Your task to perform on an android device: read, delete, or share a saved page in the chrome app Image 0: 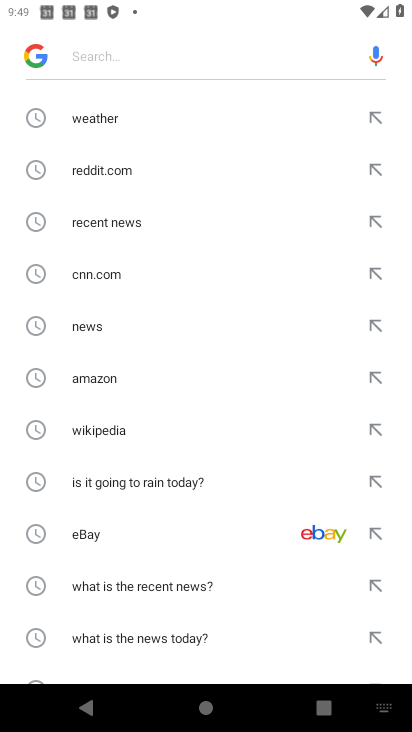
Step 0: drag from (205, 661) to (227, 250)
Your task to perform on an android device: read, delete, or share a saved page in the chrome app Image 1: 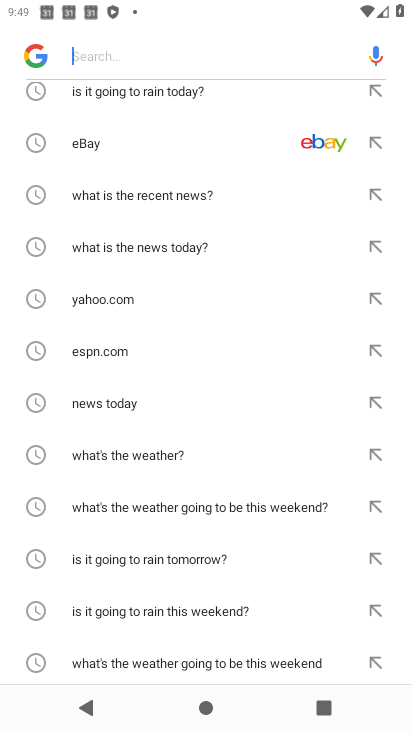
Step 1: drag from (210, 214) to (312, 701)
Your task to perform on an android device: read, delete, or share a saved page in the chrome app Image 2: 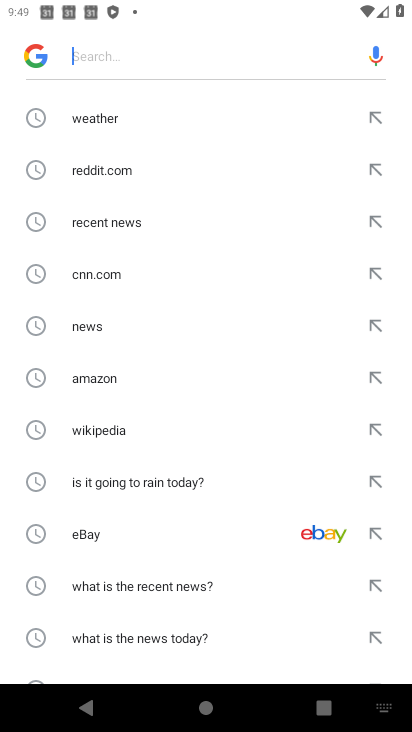
Step 2: press home button
Your task to perform on an android device: read, delete, or share a saved page in the chrome app Image 3: 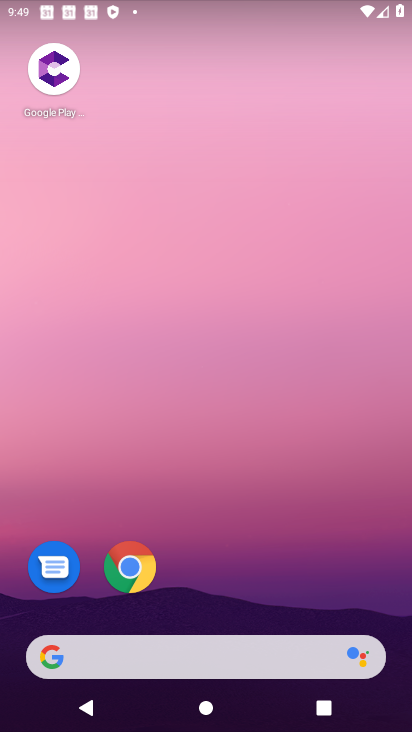
Step 3: drag from (219, 689) to (216, 3)
Your task to perform on an android device: read, delete, or share a saved page in the chrome app Image 4: 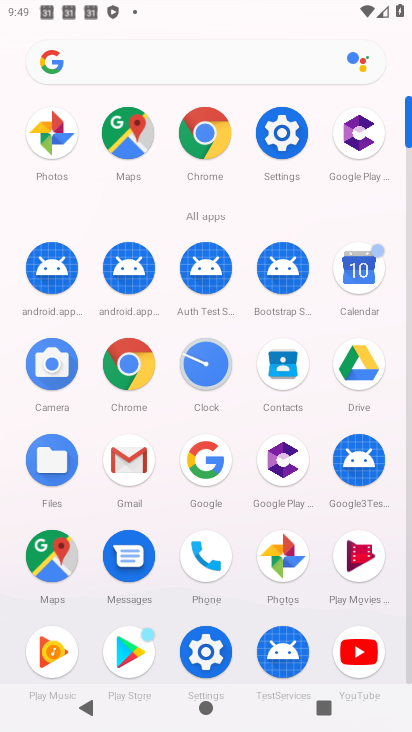
Step 4: click (117, 363)
Your task to perform on an android device: read, delete, or share a saved page in the chrome app Image 5: 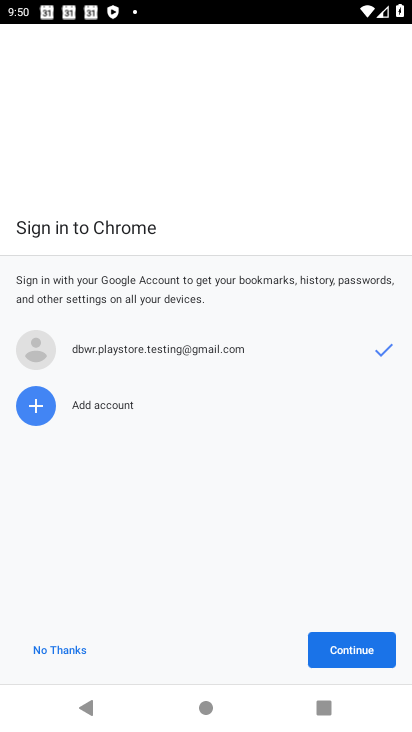
Step 5: click (371, 651)
Your task to perform on an android device: read, delete, or share a saved page in the chrome app Image 6: 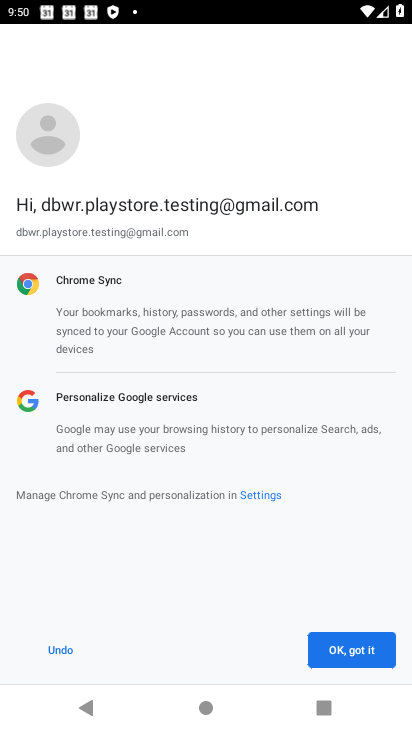
Step 6: click (62, 648)
Your task to perform on an android device: read, delete, or share a saved page in the chrome app Image 7: 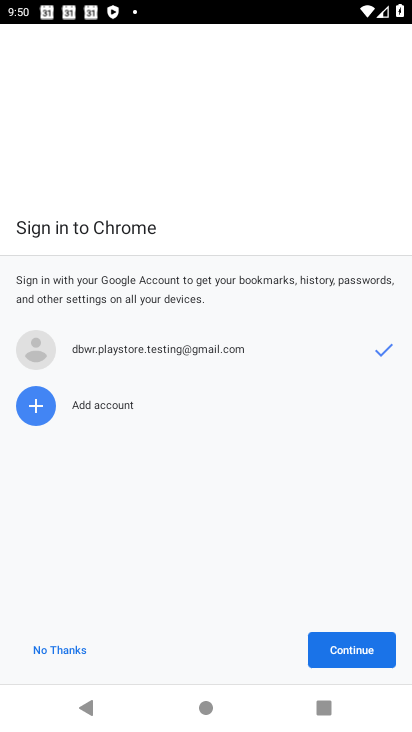
Step 7: click (62, 648)
Your task to perform on an android device: read, delete, or share a saved page in the chrome app Image 8: 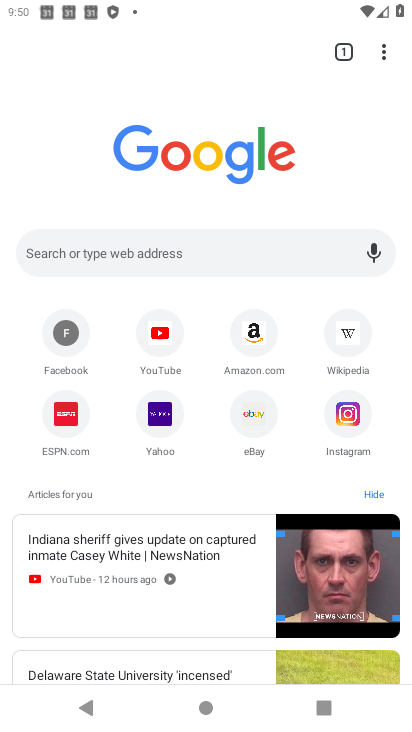
Step 8: task complete